Your task to perform on an android device: toggle priority inbox in the gmail app Image 0: 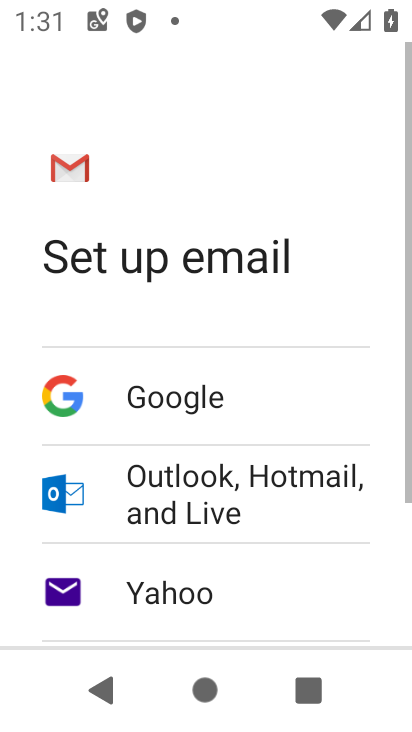
Step 0: press home button
Your task to perform on an android device: toggle priority inbox in the gmail app Image 1: 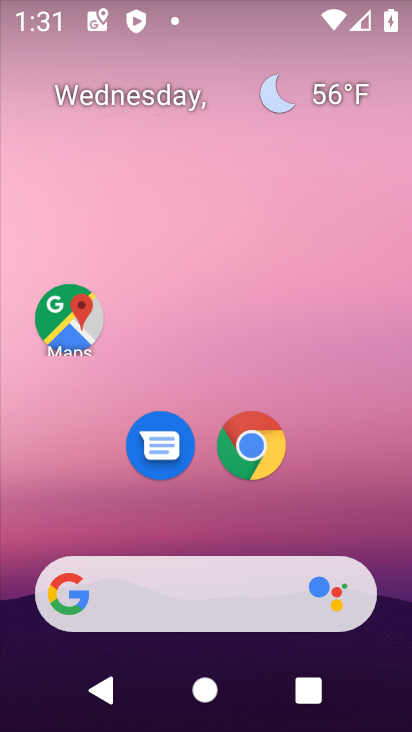
Step 1: drag from (197, 550) to (240, 22)
Your task to perform on an android device: toggle priority inbox in the gmail app Image 2: 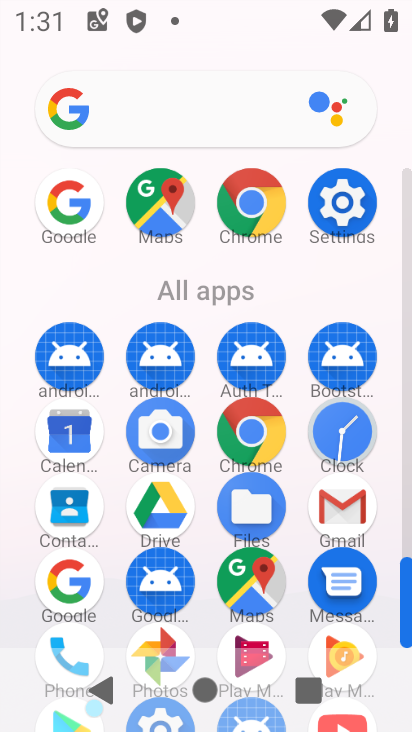
Step 2: click (352, 507)
Your task to perform on an android device: toggle priority inbox in the gmail app Image 3: 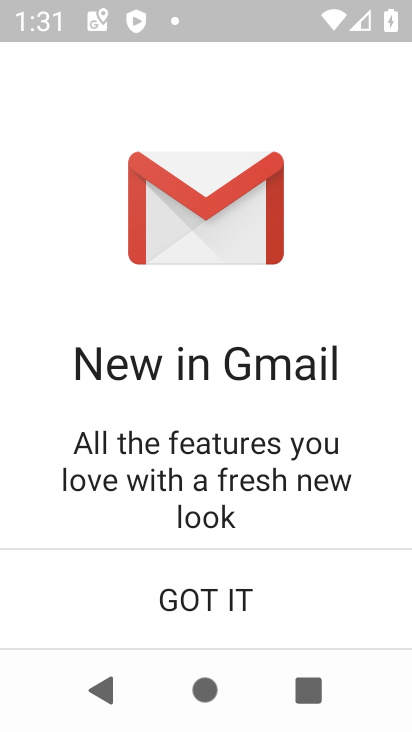
Step 3: click (161, 614)
Your task to perform on an android device: toggle priority inbox in the gmail app Image 4: 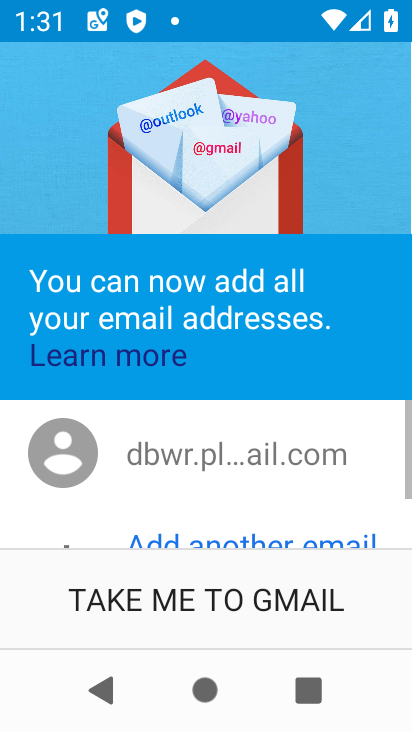
Step 4: click (161, 614)
Your task to perform on an android device: toggle priority inbox in the gmail app Image 5: 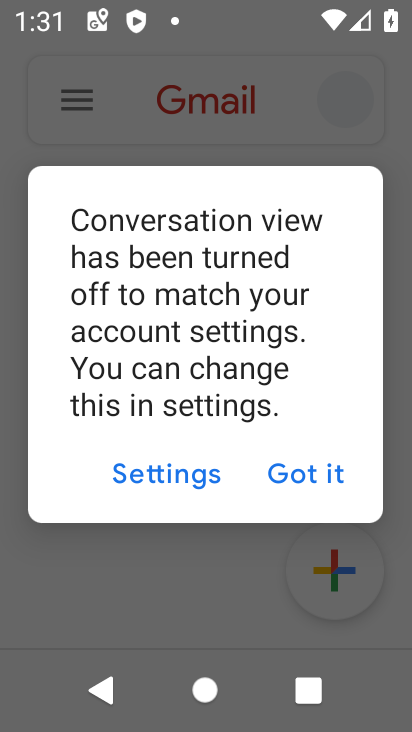
Step 5: click (330, 477)
Your task to perform on an android device: toggle priority inbox in the gmail app Image 6: 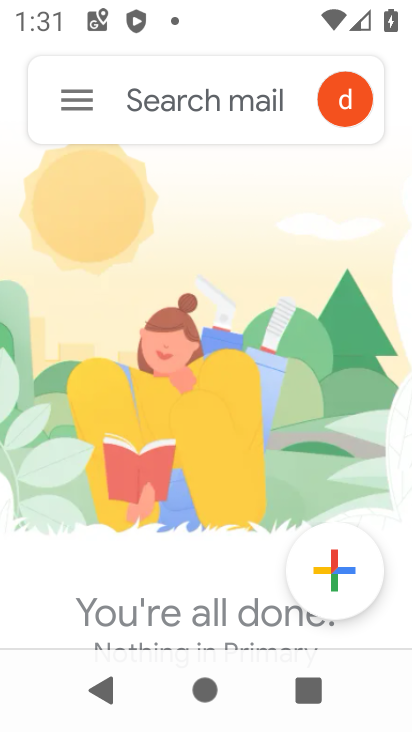
Step 6: click (55, 98)
Your task to perform on an android device: toggle priority inbox in the gmail app Image 7: 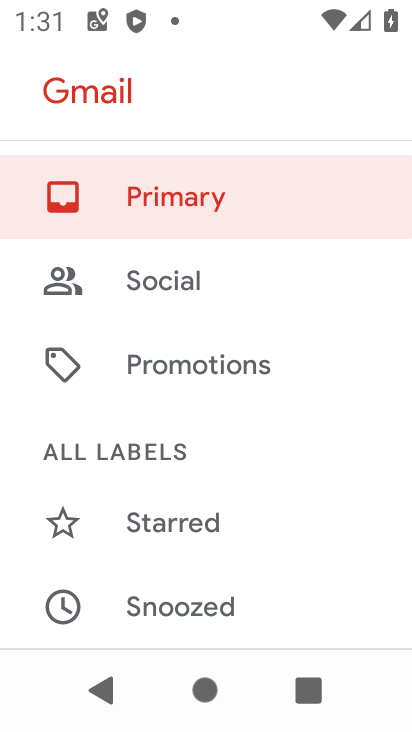
Step 7: drag from (266, 603) to (186, 172)
Your task to perform on an android device: toggle priority inbox in the gmail app Image 8: 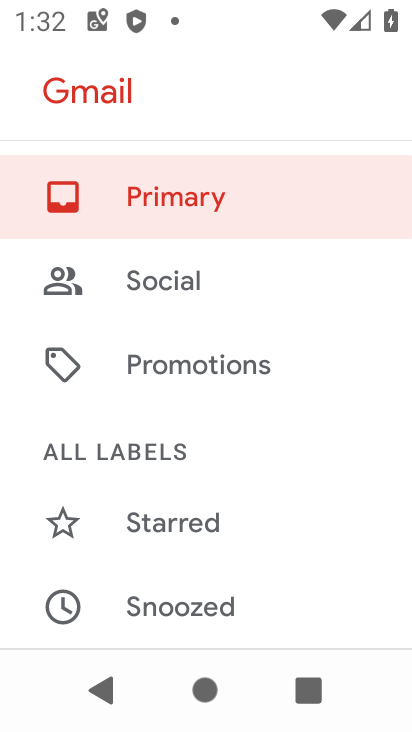
Step 8: drag from (178, 565) to (173, 131)
Your task to perform on an android device: toggle priority inbox in the gmail app Image 9: 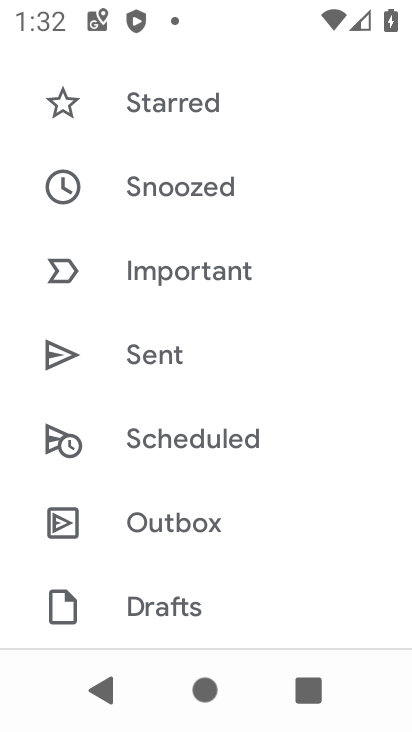
Step 9: drag from (191, 605) to (176, 193)
Your task to perform on an android device: toggle priority inbox in the gmail app Image 10: 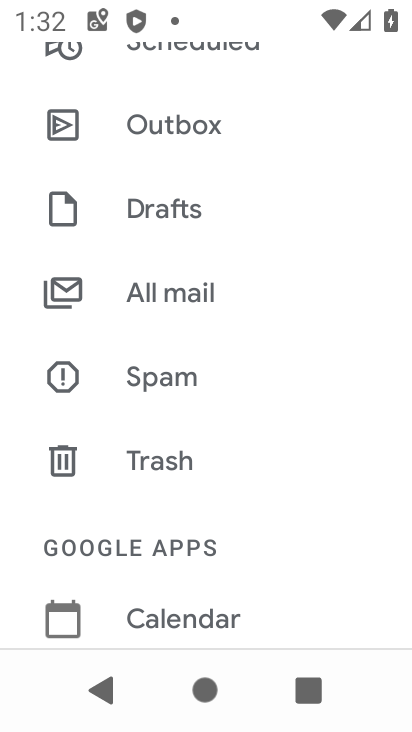
Step 10: drag from (173, 592) to (126, 0)
Your task to perform on an android device: toggle priority inbox in the gmail app Image 11: 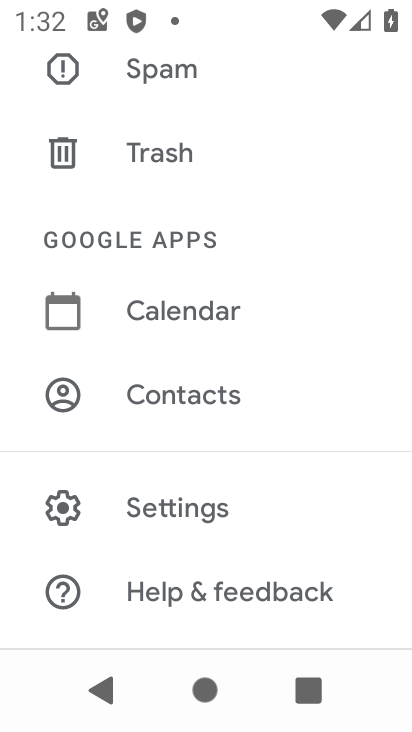
Step 11: click (175, 480)
Your task to perform on an android device: toggle priority inbox in the gmail app Image 12: 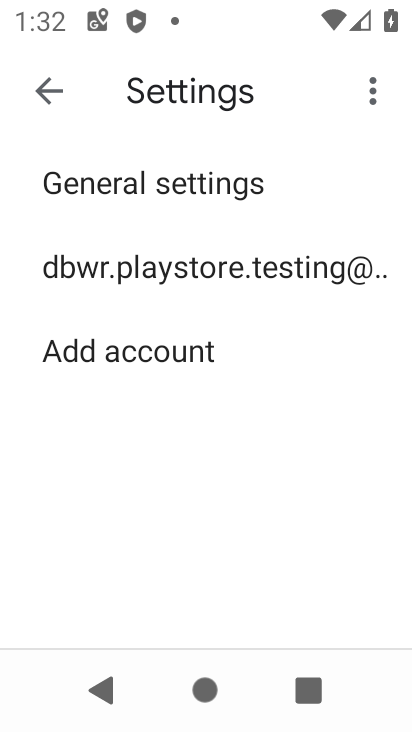
Step 12: click (131, 280)
Your task to perform on an android device: toggle priority inbox in the gmail app Image 13: 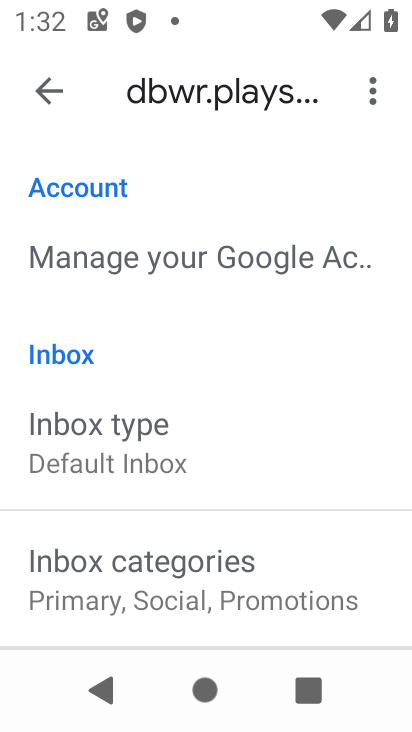
Step 13: click (149, 460)
Your task to perform on an android device: toggle priority inbox in the gmail app Image 14: 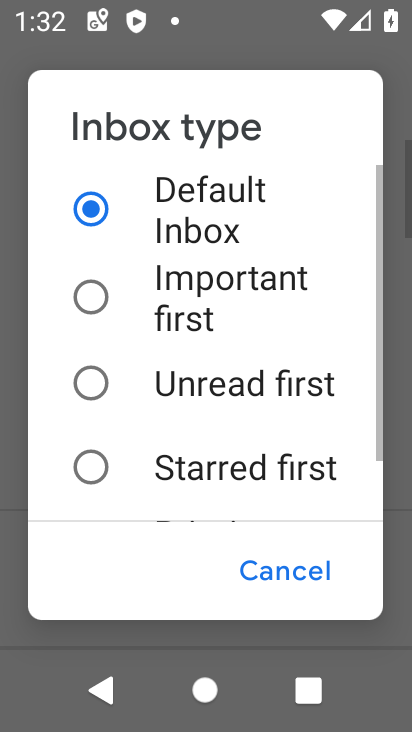
Step 14: drag from (181, 483) to (181, 169)
Your task to perform on an android device: toggle priority inbox in the gmail app Image 15: 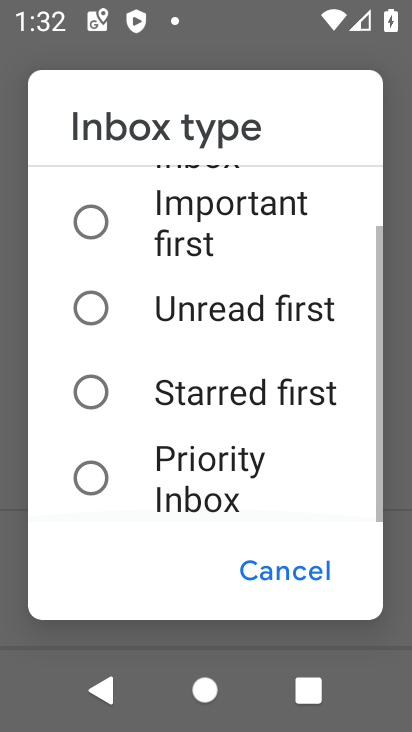
Step 15: click (233, 482)
Your task to perform on an android device: toggle priority inbox in the gmail app Image 16: 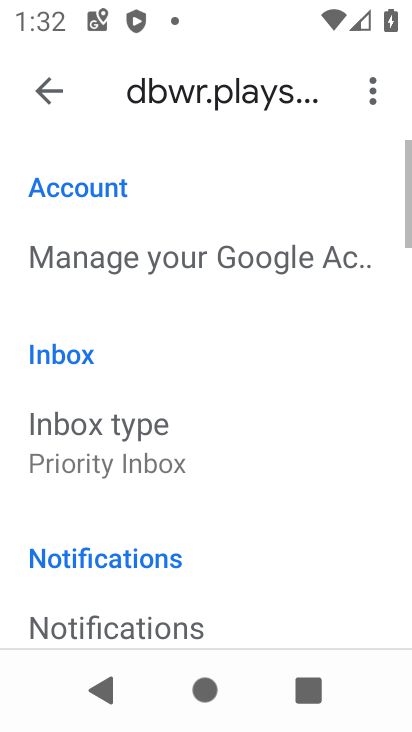
Step 16: task complete